Your task to perform on an android device: toggle sleep mode Image 0: 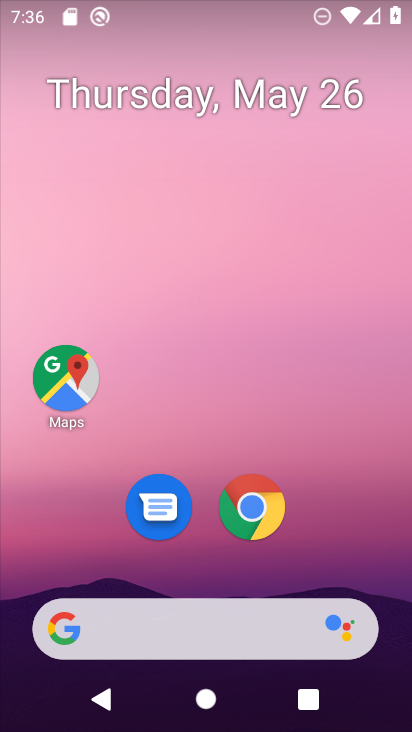
Step 0: press home button
Your task to perform on an android device: toggle sleep mode Image 1: 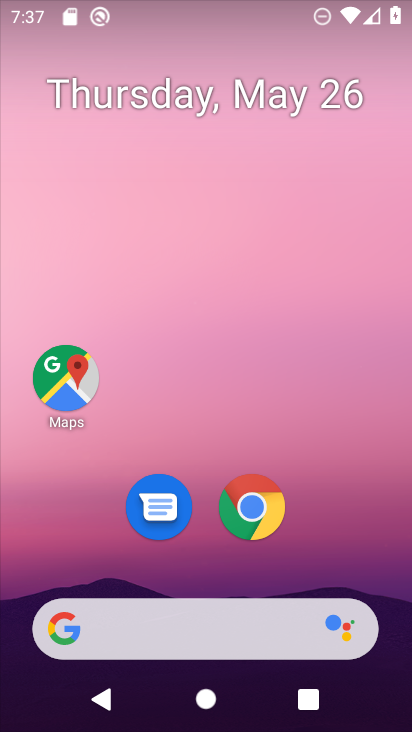
Step 1: drag from (201, 562) to (162, 49)
Your task to perform on an android device: toggle sleep mode Image 2: 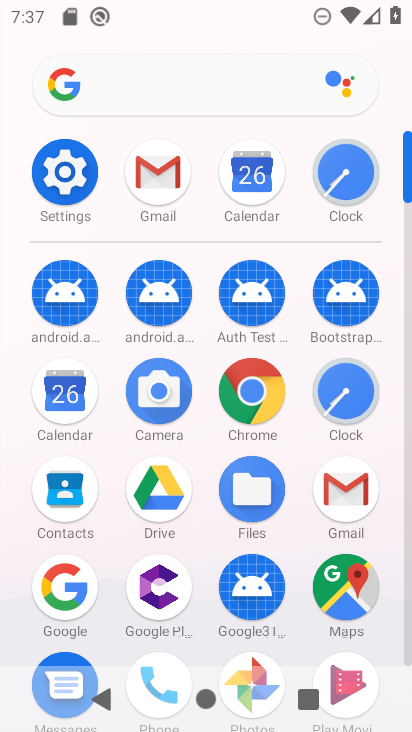
Step 2: click (69, 180)
Your task to perform on an android device: toggle sleep mode Image 3: 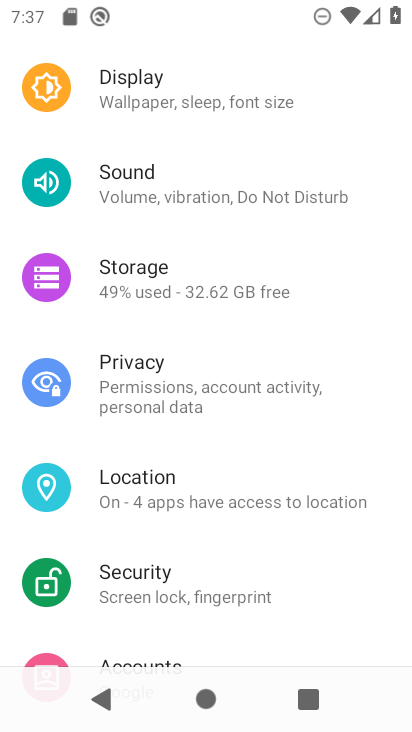
Step 3: task complete